Your task to perform on an android device: Go to Amazon Image 0: 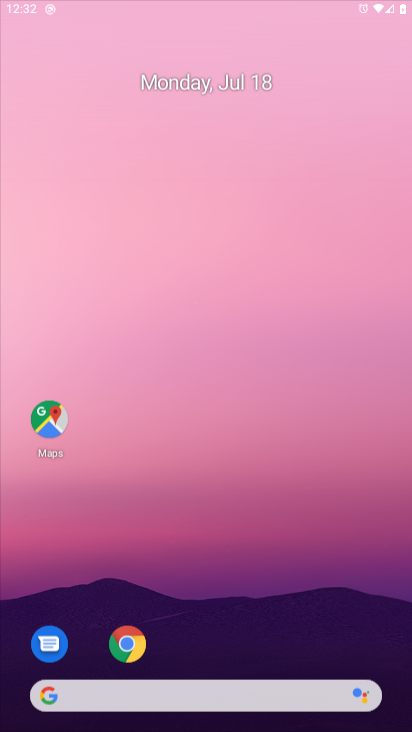
Step 0: press home button
Your task to perform on an android device: Go to Amazon Image 1: 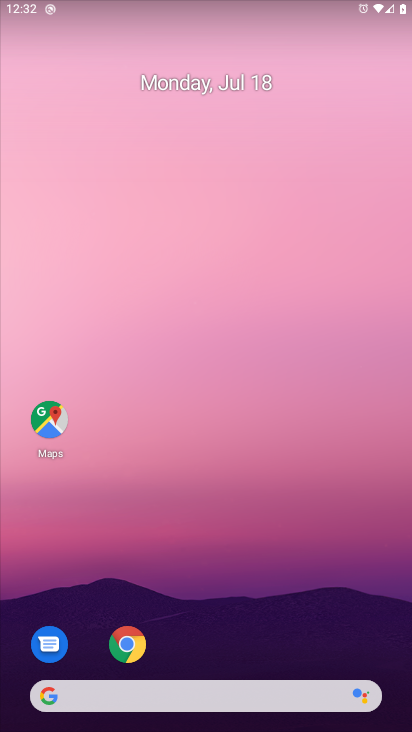
Step 1: press home button
Your task to perform on an android device: Go to Amazon Image 2: 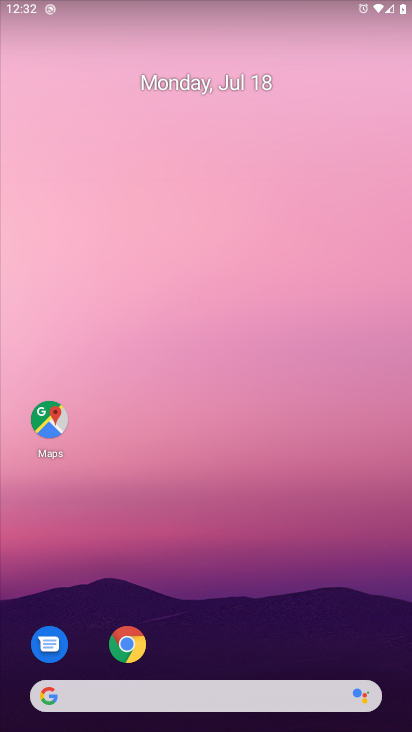
Step 2: drag from (282, 623) to (248, 111)
Your task to perform on an android device: Go to Amazon Image 3: 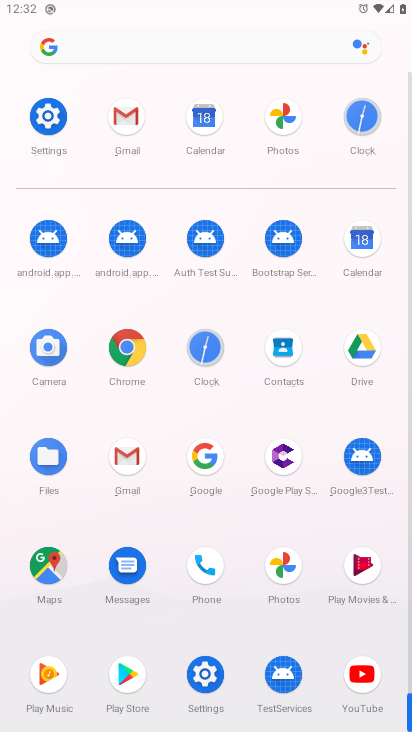
Step 3: click (205, 449)
Your task to perform on an android device: Go to Amazon Image 4: 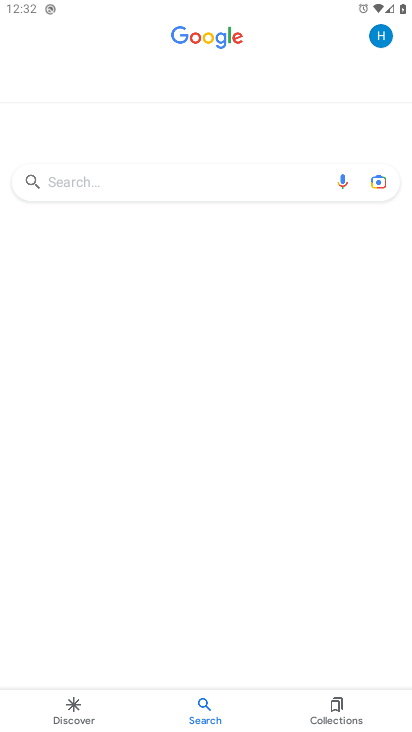
Step 4: click (67, 184)
Your task to perform on an android device: Go to Amazon Image 5: 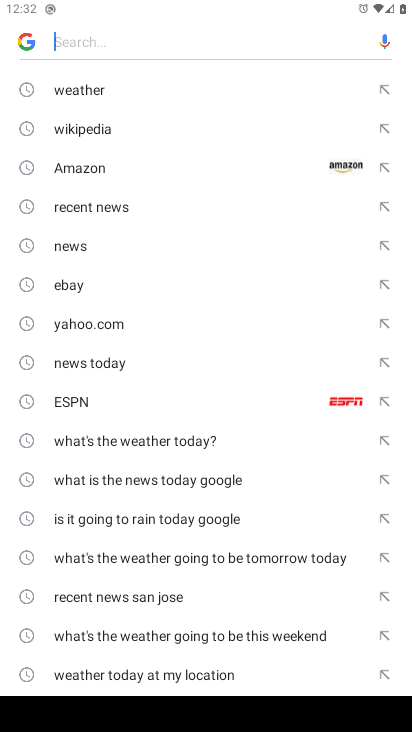
Step 5: type "Amazon"
Your task to perform on an android device: Go to Amazon Image 6: 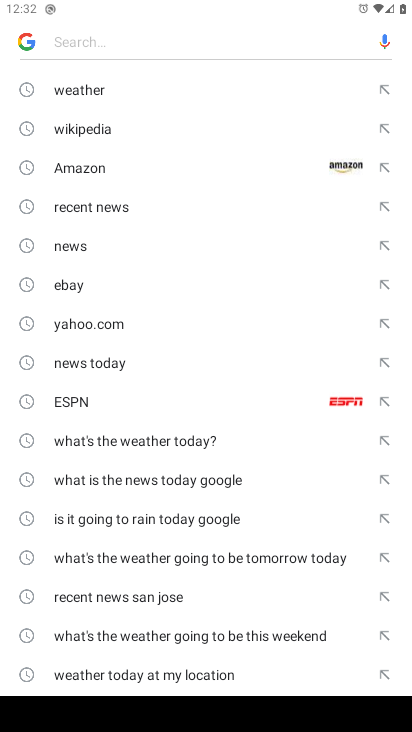
Step 6: click (84, 39)
Your task to perform on an android device: Go to Amazon Image 7: 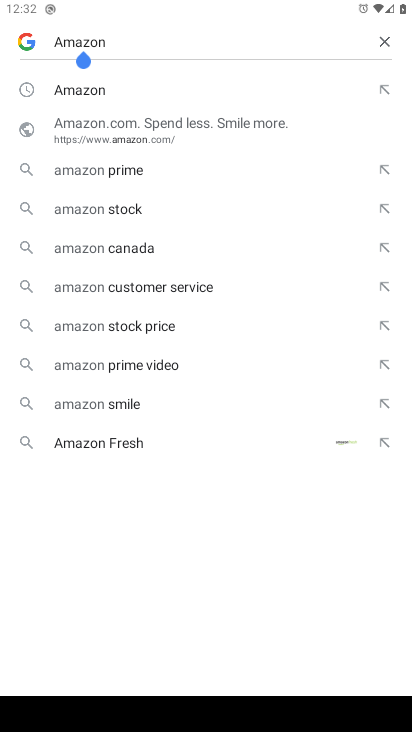
Step 7: press enter
Your task to perform on an android device: Go to Amazon Image 8: 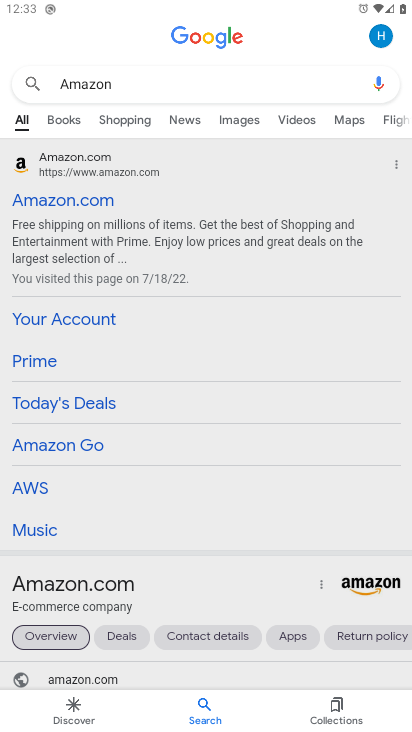
Step 8: click (54, 198)
Your task to perform on an android device: Go to Amazon Image 9: 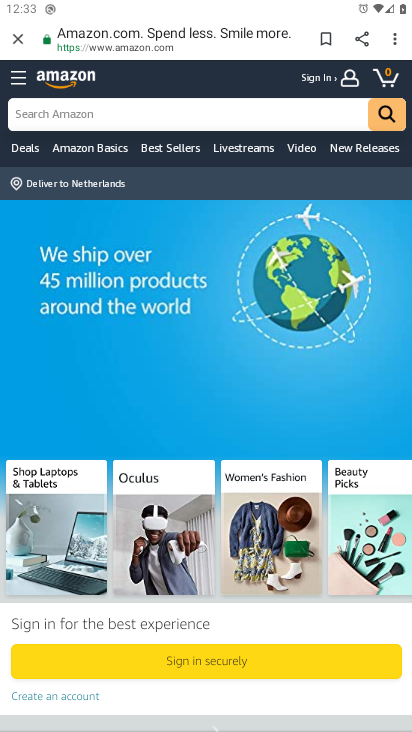
Step 9: task complete